Your task to perform on an android device: snooze an email in the gmail app Image 0: 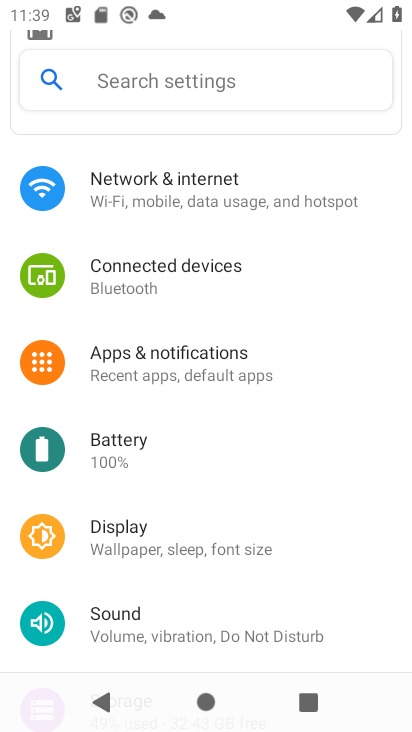
Step 0: press home button
Your task to perform on an android device: snooze an email in the gmail app Image 1: 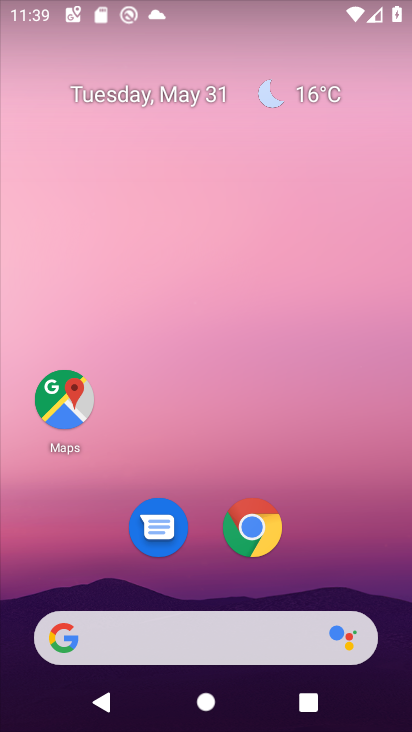
Step 1: drag from (350, 501) to (384, 0)
Your task to perform on an android device: snooze an email in the gmail app Image 2: 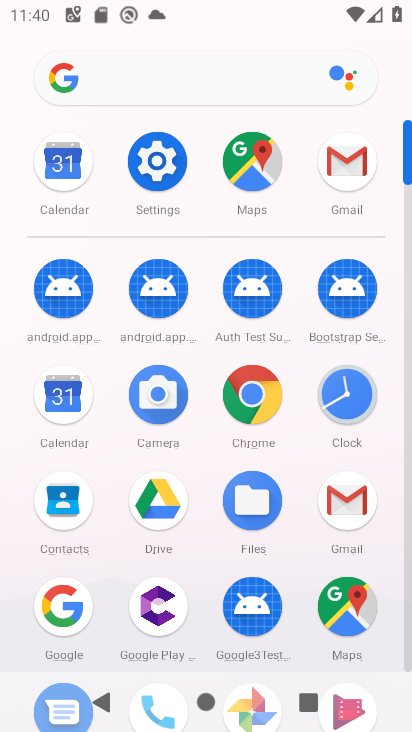
Step 2: click (340, 173)
Your task to perform on an android device: snooze an email in the gmail app Image 3: 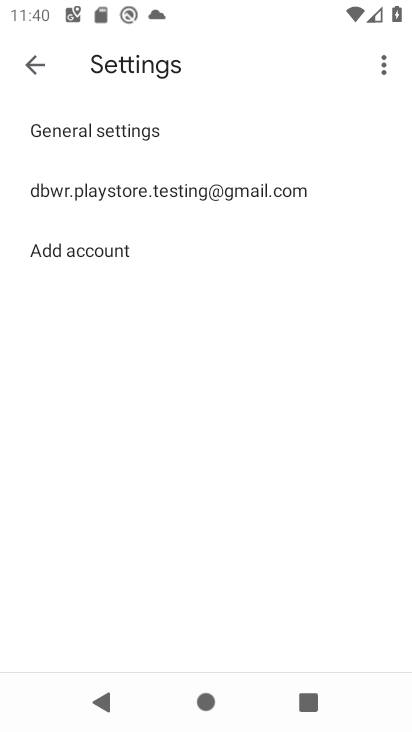
Step 3: click (27, 70)
Your task to perform on an android device: snooze an email in the gmail app Image 4: 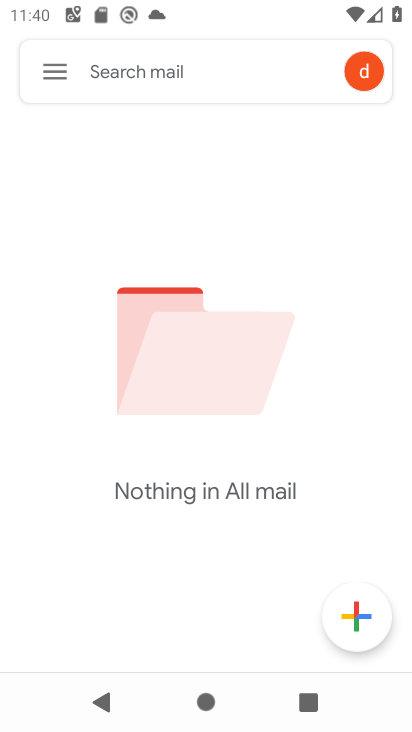
Step 4: task complete